Your task to perform on an android device: open app "Clock" (install if not already installed) Image 0: 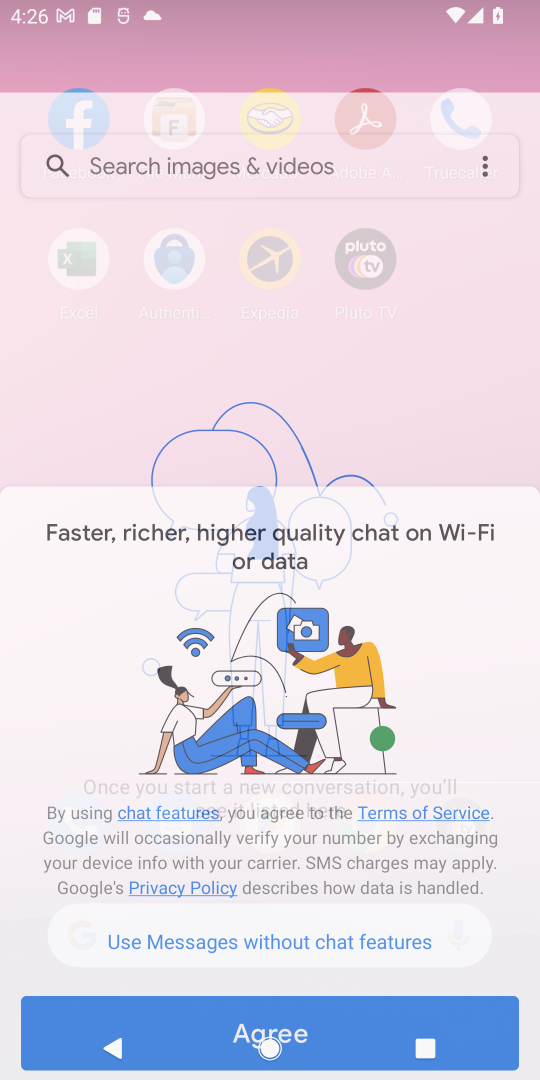
Step 0: press home button
Your task to perform on an android device: open app "Clock" (install if not already installed) Image 1: 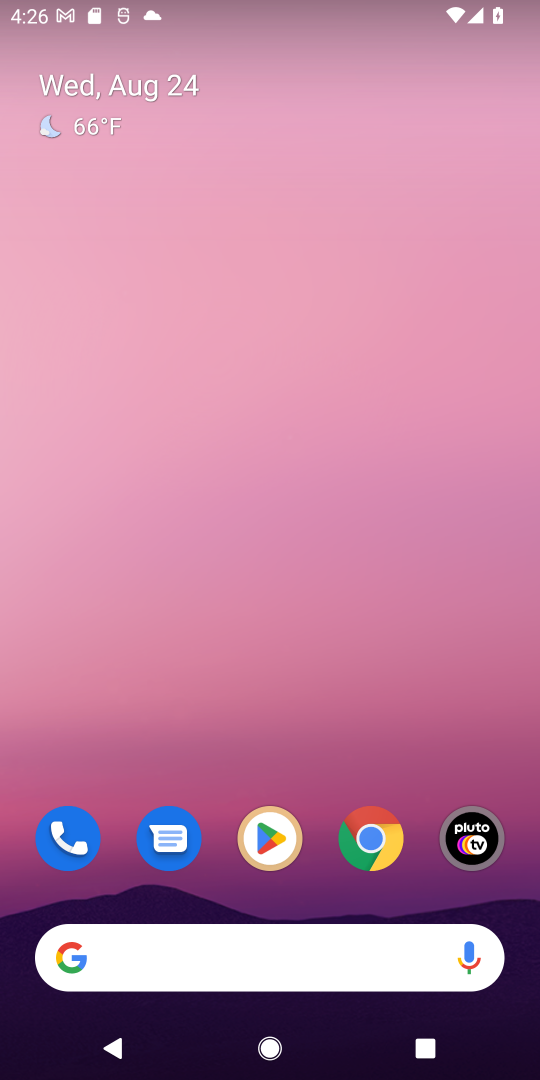
Step 1: click (267, 832)
Your task to perform on an android device: open app "Clock" (install if not already installed) Image 2: 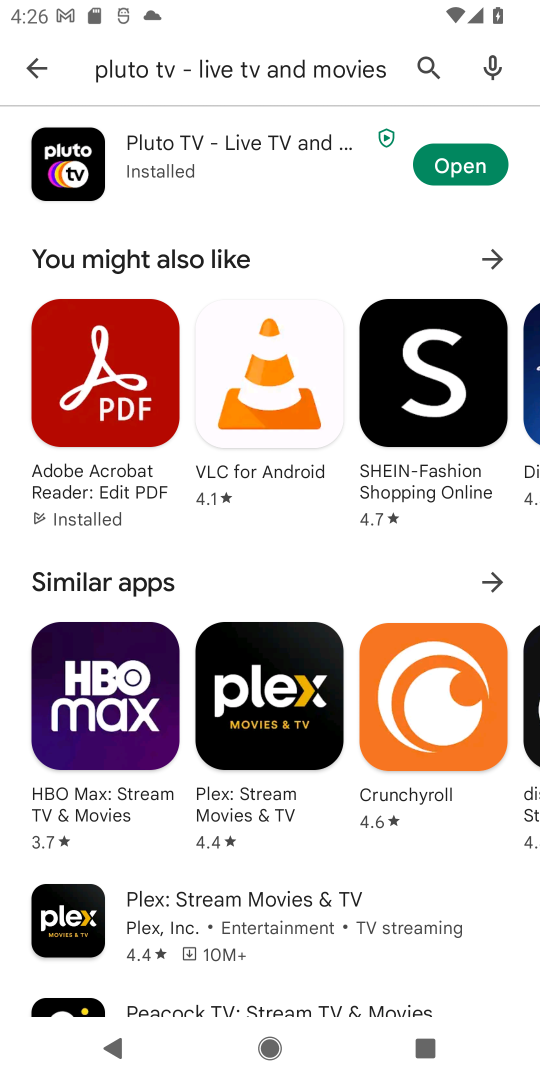
Step 2: click (410, 59)
Your task to perform on an android device: open app "Clock" (install if not already installed) Image 3: 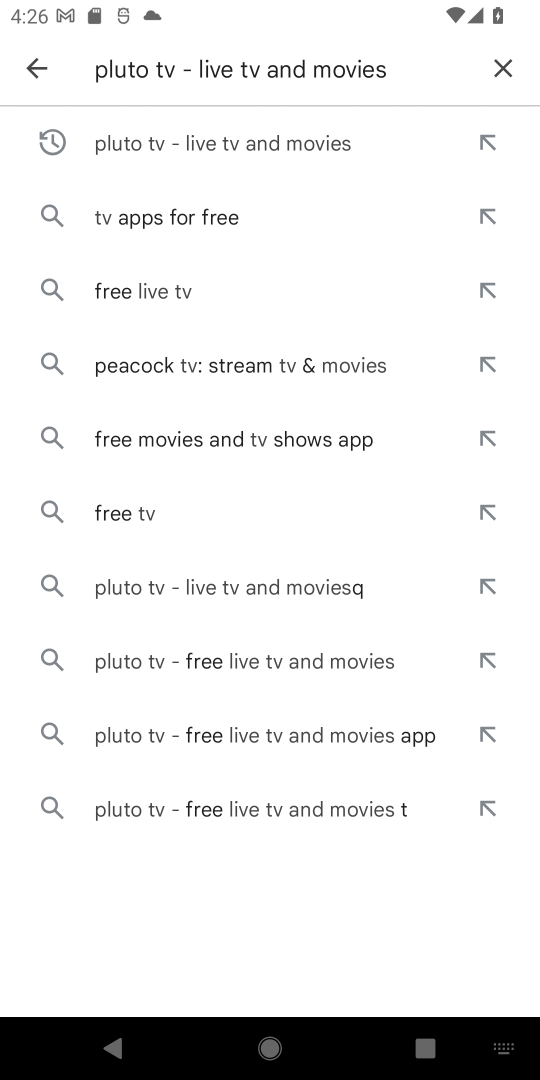
Step 3: click (493, 80)
Your task to perform on an android device: open app "Clock" (install if not already installed) Image 4: 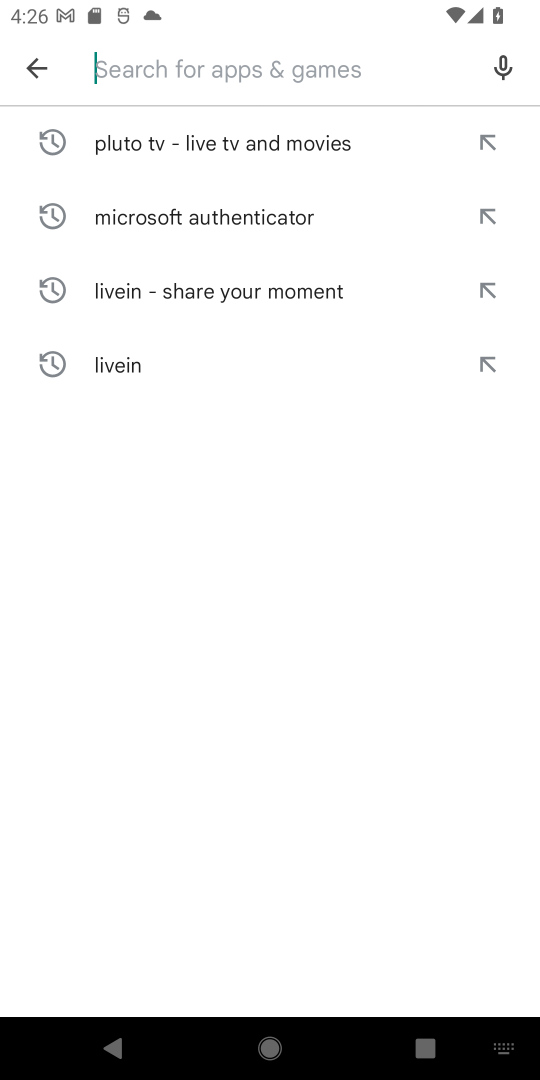
Step 4: type "Clock"
Your task to perform on an android device: open app "Clock" (install if not already installed) Image 5: 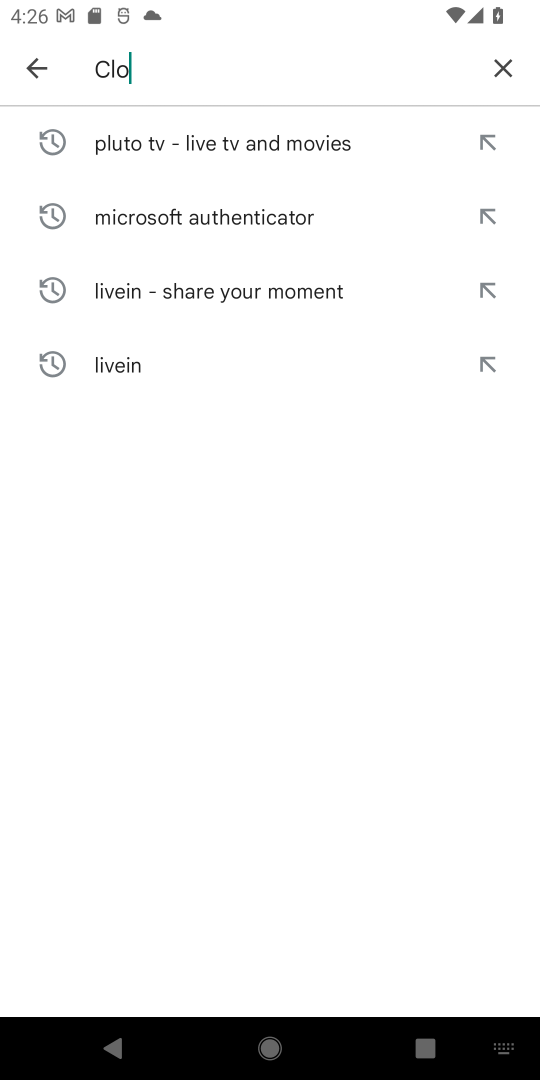
Step 5: type ""
Your task to perform on an android device: open app "Clock" (install if not already installed) Image 6: 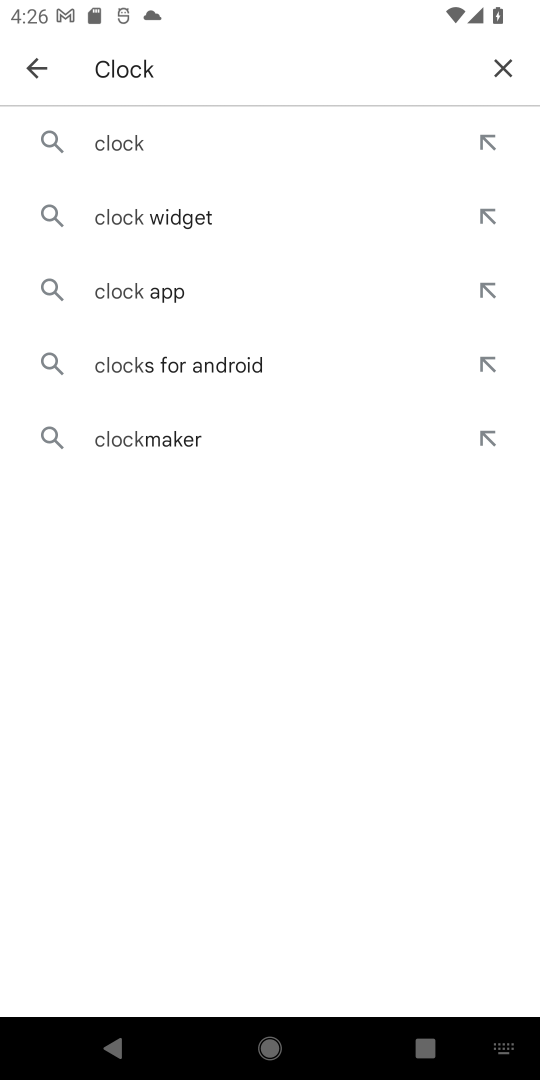
Step 6: click (156, 148)
Your task to perform on an android device: open app "Clock" (install if not already installed) Image 7: 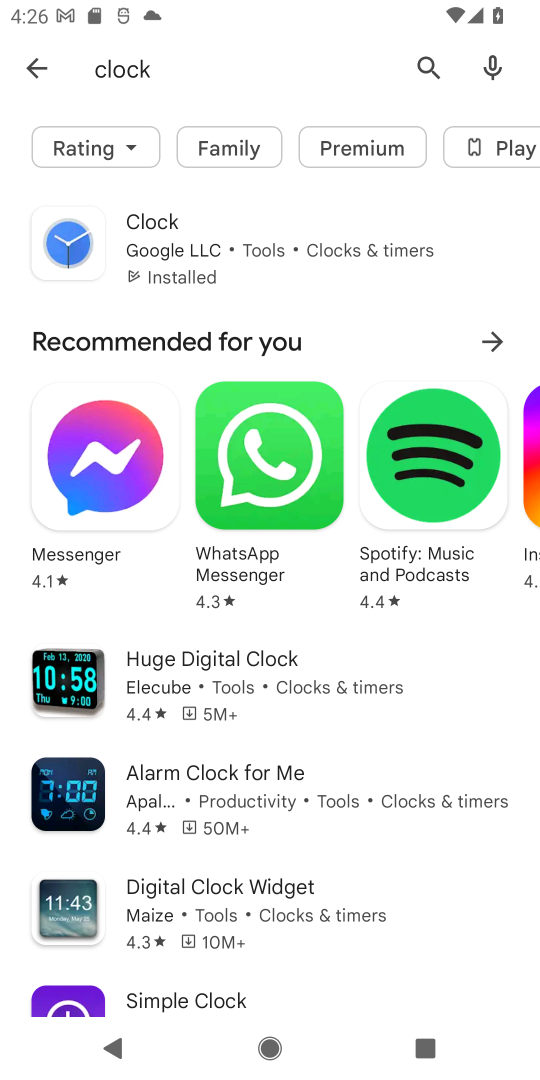
Step 7: click (210, 252)
Your task to perform on an android device: open app "Clock" (install if not already installed) Image 8: 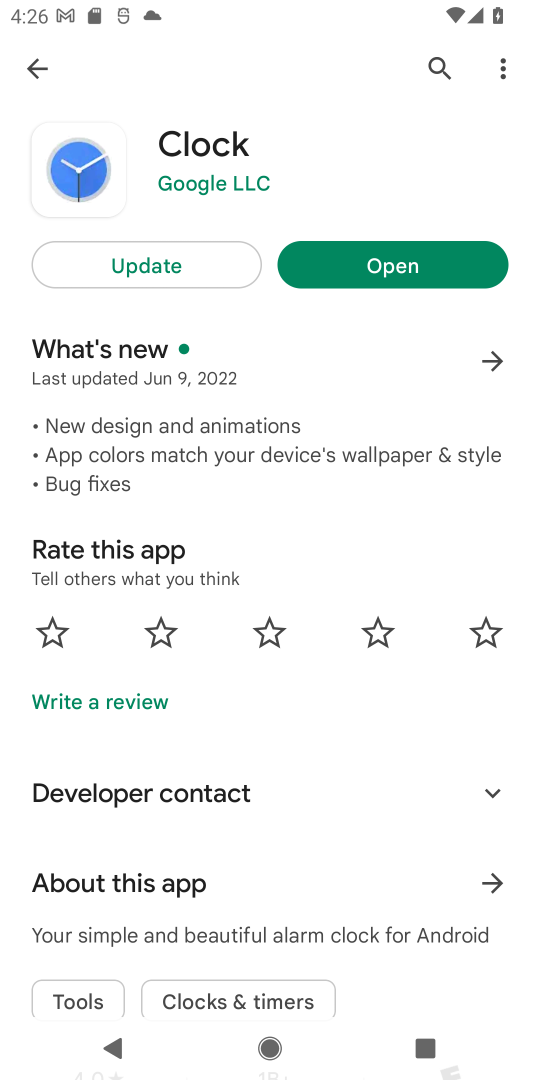
Step 8: click (428, 276)
Your task to perform on an android device: open app "Clock" (install if not already installed) Image 9: 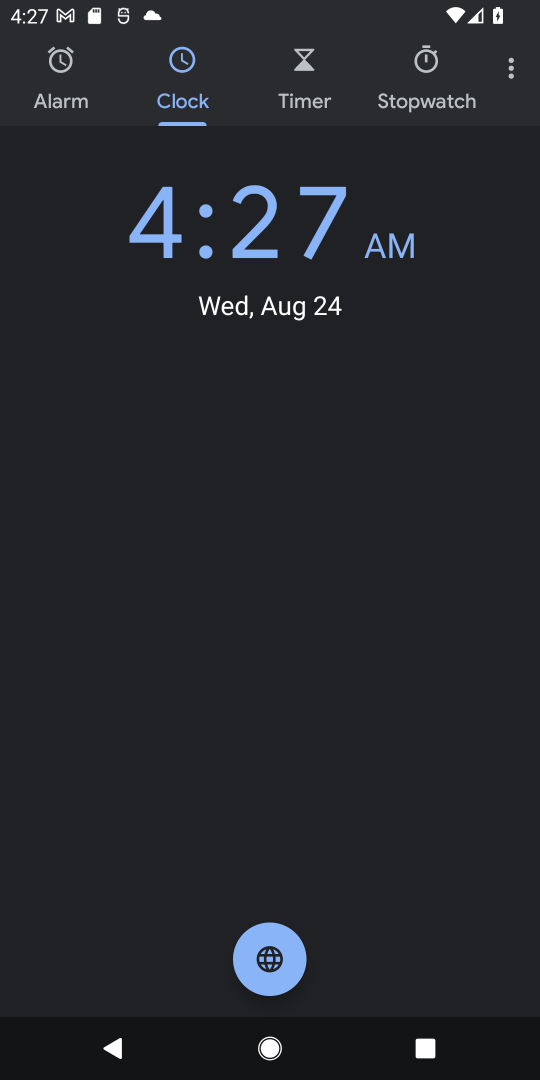
Step 9: task complete